Your task to perform on an android device: Open calendar and show me the first week of next month Image 0: 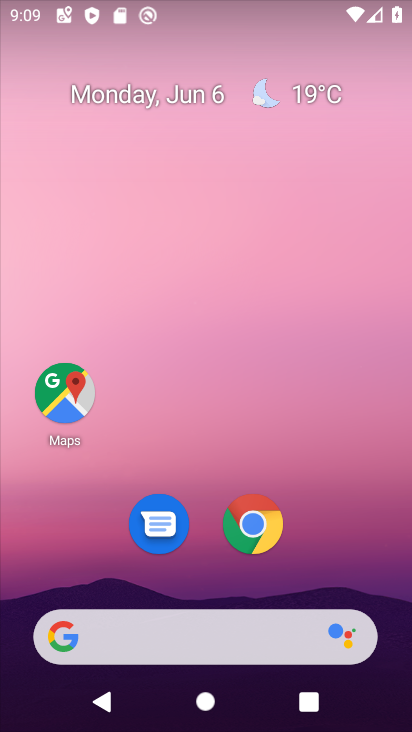
Step 0: drag from (324, 536) to (282, 10)
Your task to perform on an android device: Open calendar and show me the first week of next month Image 1: 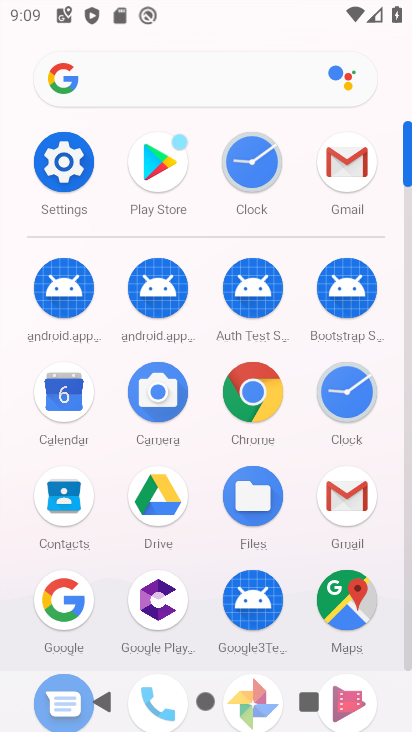
Step 1: click (75, 387)
Your task to perform on an android device: Open calendar and show me the first week of next month Image 2: 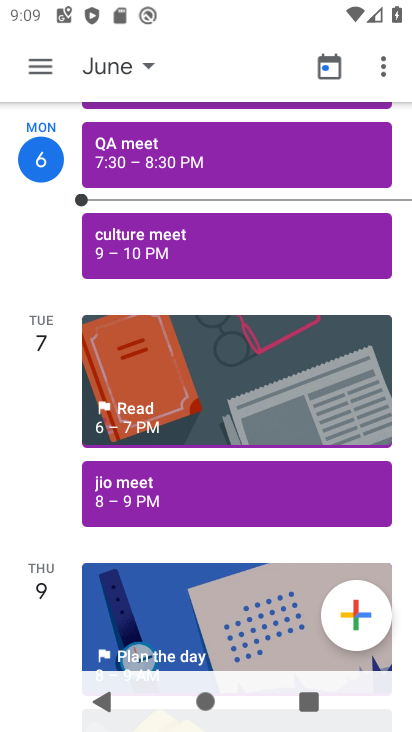
Step 2: click (44, 60)
Your task to perform on an android device: Open calendar and show me the first week of next month Image 3: 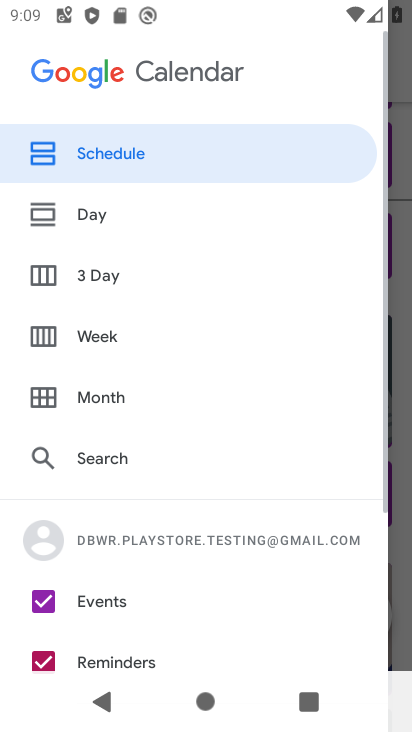
Step 3: click (81, 329)
Your task to perform on an android device: Open calendar and show me the first week of next month Image 4: 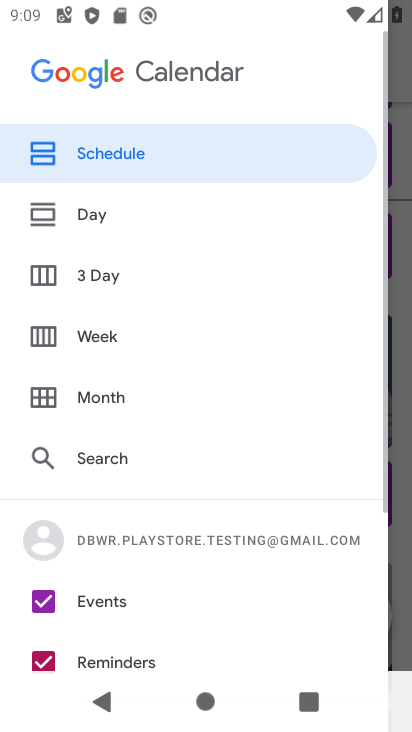
Step 4: click (40, 388)
Your task to perform on an android device: Open calendar and show me the first week of next month Image 5: 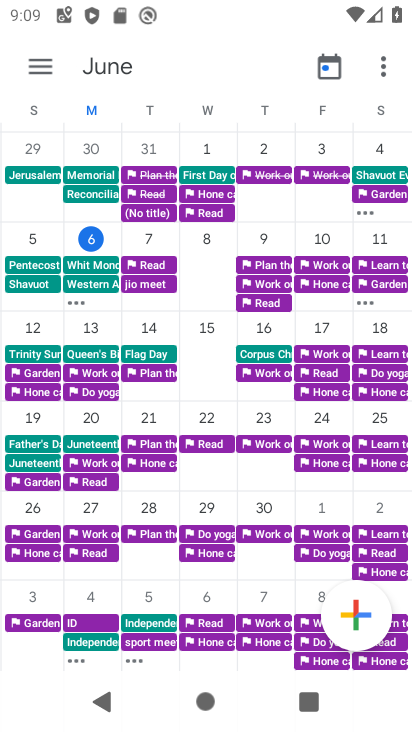
Step 5: drag from (353, 450) to (0, 403)
Your task to perform on an android device: Open calendar and show me the first week of next month Image 6: 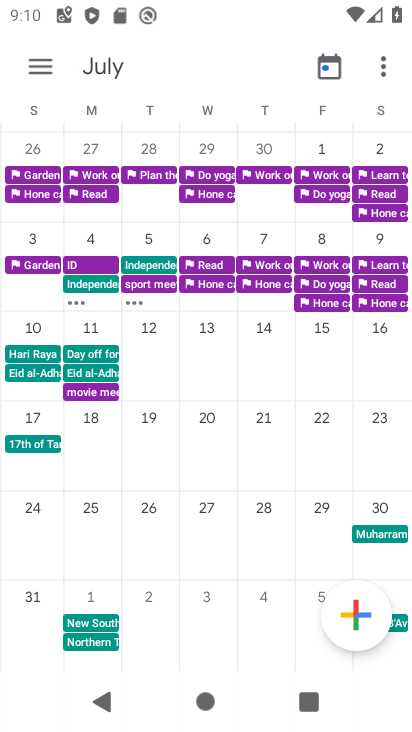
Step 6: click (38, 232)
Your task to perform on an android device: Open calendar and show me the first week of next month Image 7: 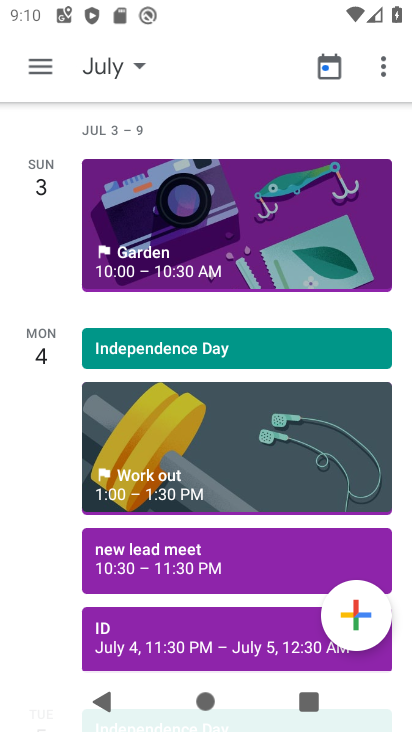
Step 7: click (41, 71)
Your task to perform on an android device: Open calendar and show me the first week of next month Image 8: 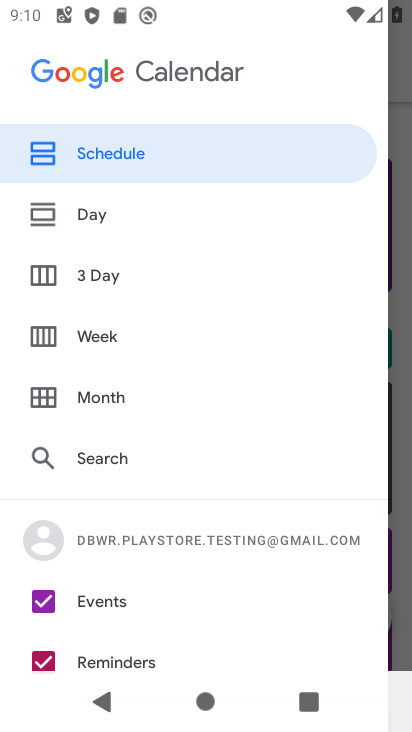
Step 8: click (94, 334)
Your task to perform on an android device: Open calendar and show me the first week of next month Image 9: 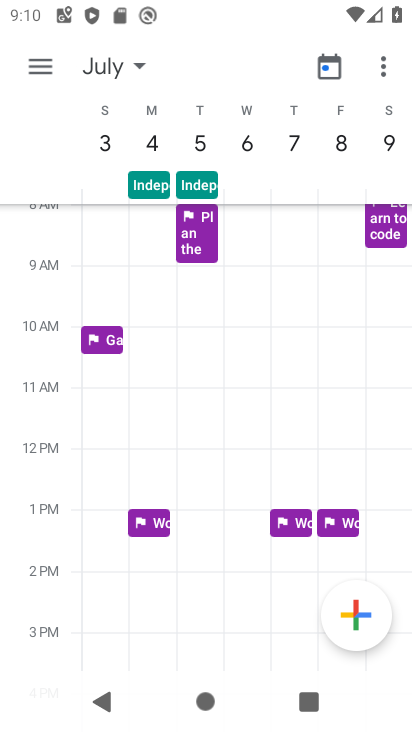
Step 9: task complete